Your task to perform on an android device: manage bookmarks in the chrome app Image 0: 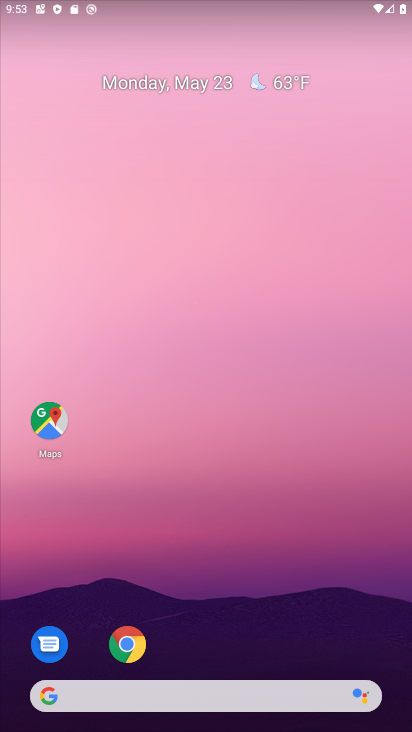
Step 0: click (124, 641)
Your task to perform on an android device: manage bookmarks in the chrome app Image 1: 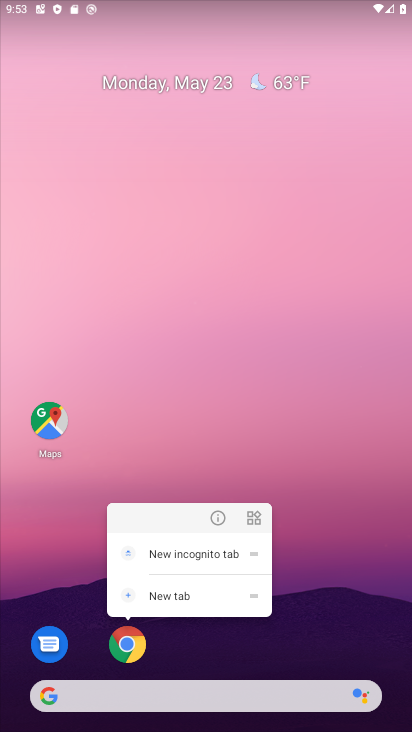
Step 1: click (124, 641)
Your task to perform on an android device: manage bookmarks in the chrome app Image 2: 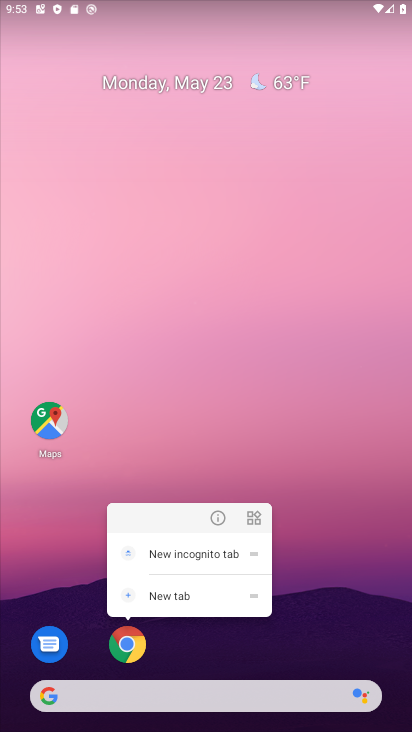
Step 2: click (123, 641)
Your task to perform on an android device: manage bookmarks in the chrome app Image 3: 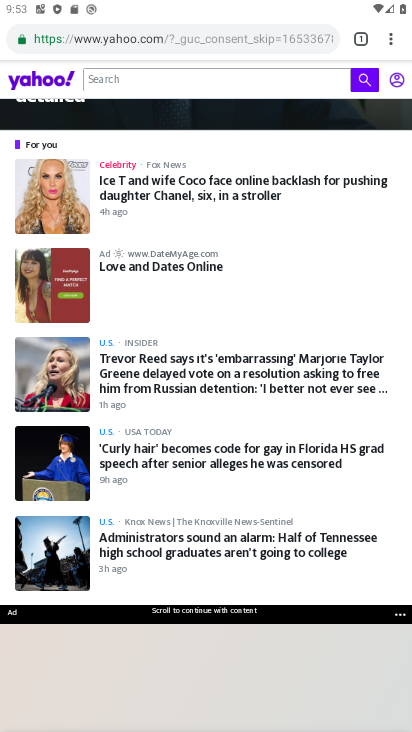
Step 3: click (387, 36)
Your task to perform on an android device: manage bookmarks in the chrome app Image 4: 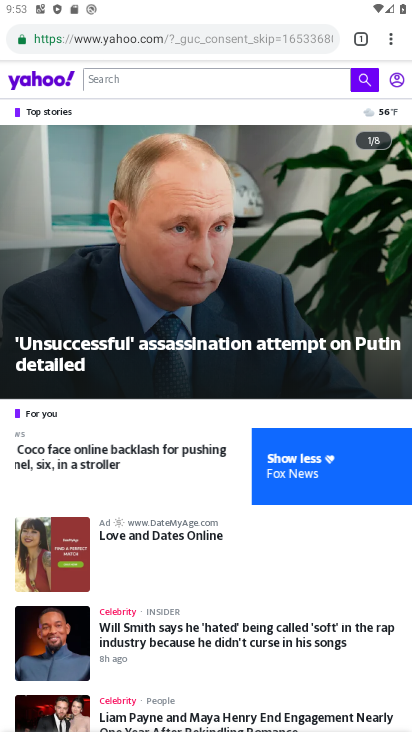
Step 4: click (387, 33)
Your task to perform on an android device: manage bookmarks in the chrome app Image 5: 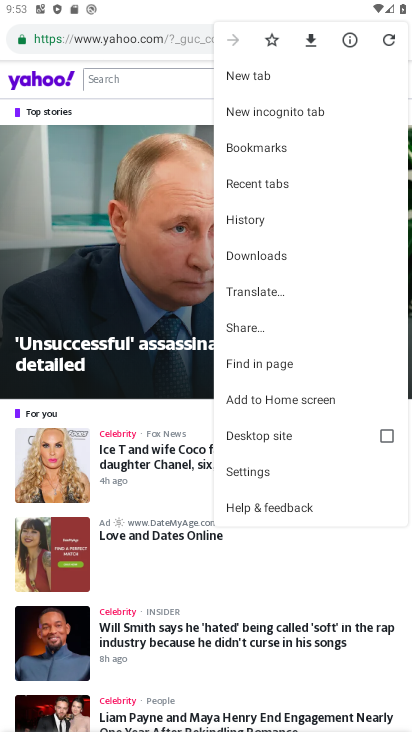
Step 5: click (286, 142)
Your task to perform on an android device: manage bookmarks in the chrome app Image 6: 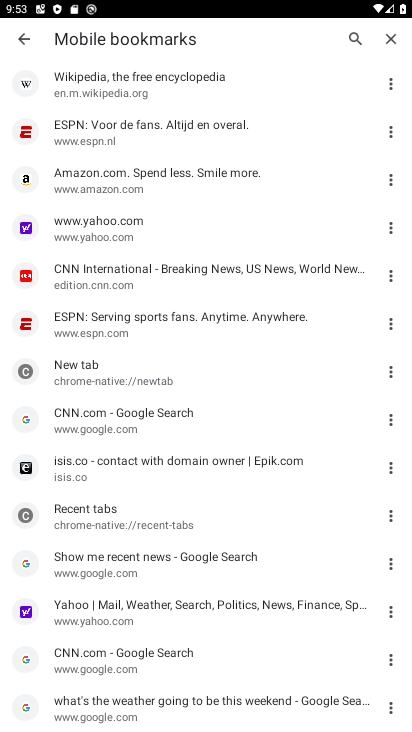
Step 6: task complete